Your task to perform on an android device: Open the stopwatch Image 0: 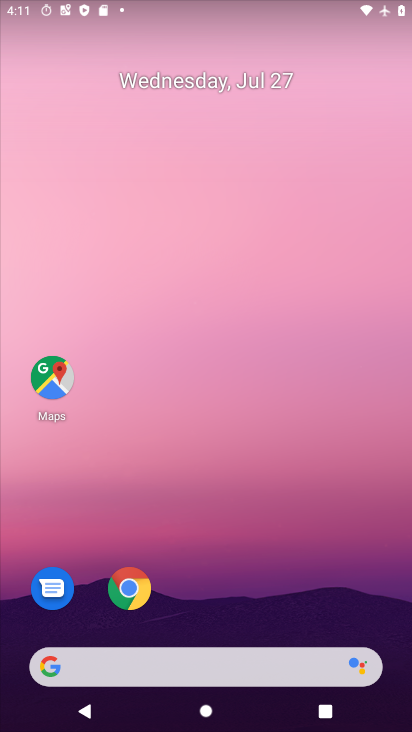
Step 0: press home button
Your task to perform on an android device: Open the stopwatch Image 1: 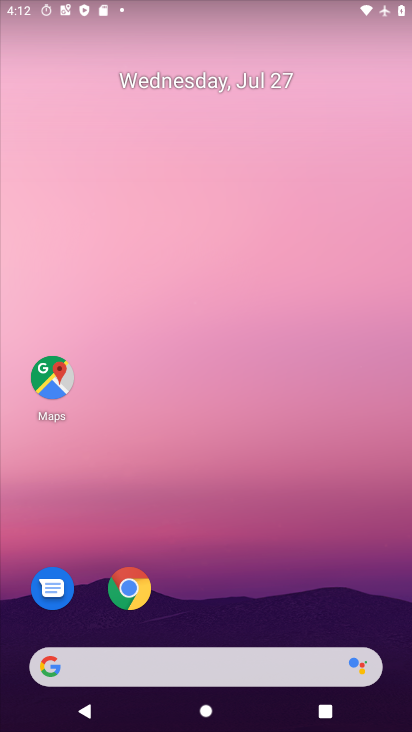
Step 1: drag from (213, 628) to (110, 53)
Your task to perform on an android device: Open the stopwatch Image 2: 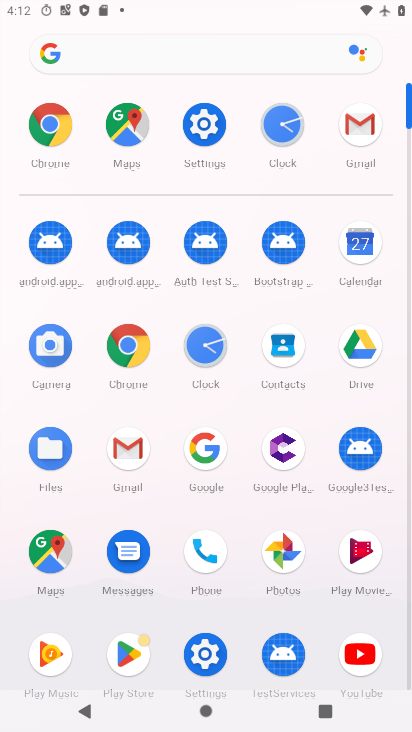
Step 2: click (197, 344)
Your task to perform on an android device: Open the stopwatch Image 3: 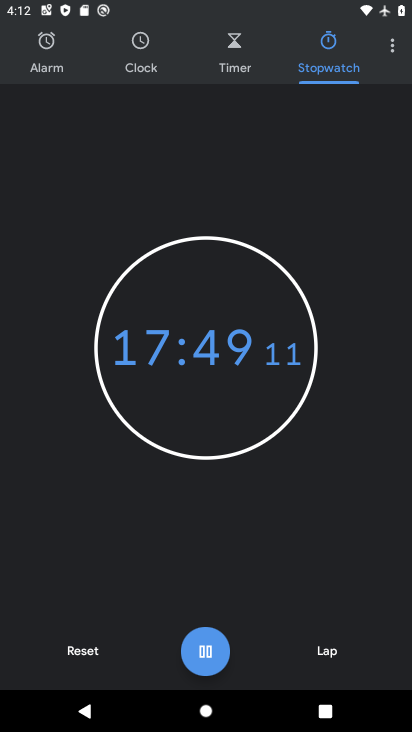
Step 3: click (340, 58)
Your task to perform on an android device: Open the stopwatch Image 4: 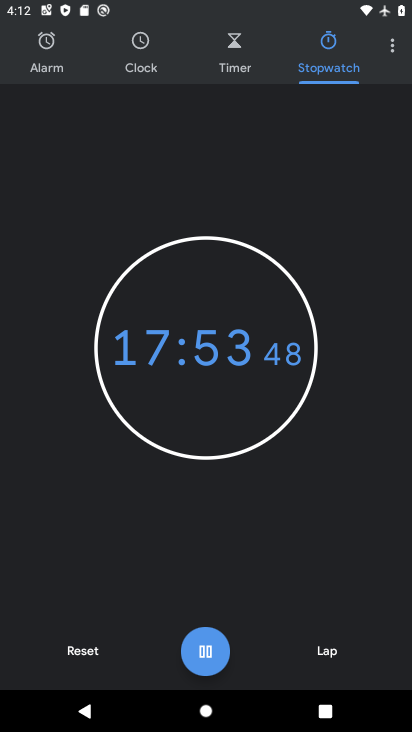
Step 4: task complete